Your task to perform on an android device: turn on bluetooth scan Image 0: 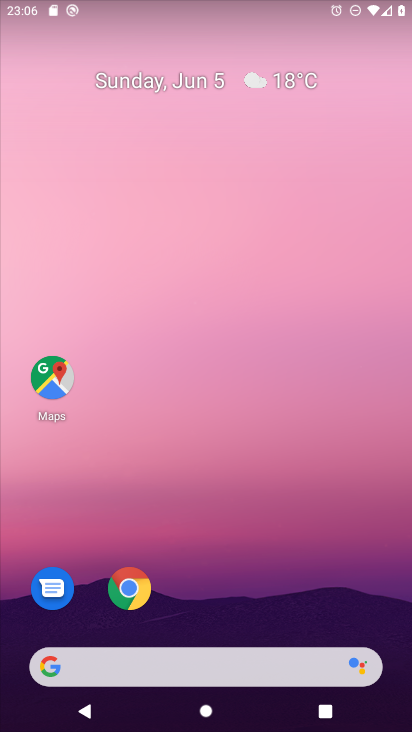
Step 0: drag from (347, 610) to (383, 179)
Your task to perform on an android device: turn on bluetooth scan Image 1: 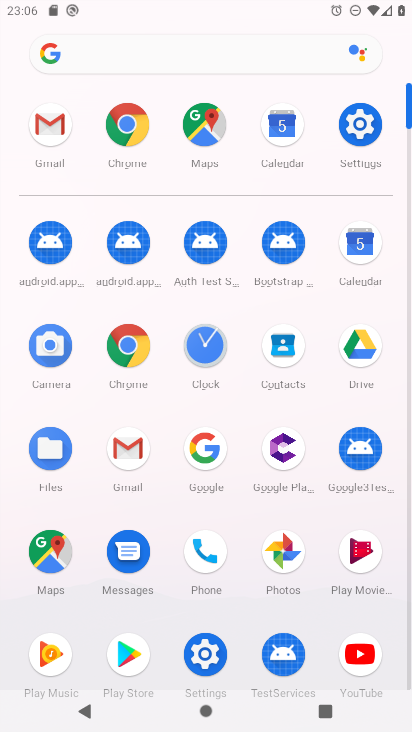
Step 1: click (360, 133)
Your task to perform on an android device: turn on bluetooth scan Image 2: 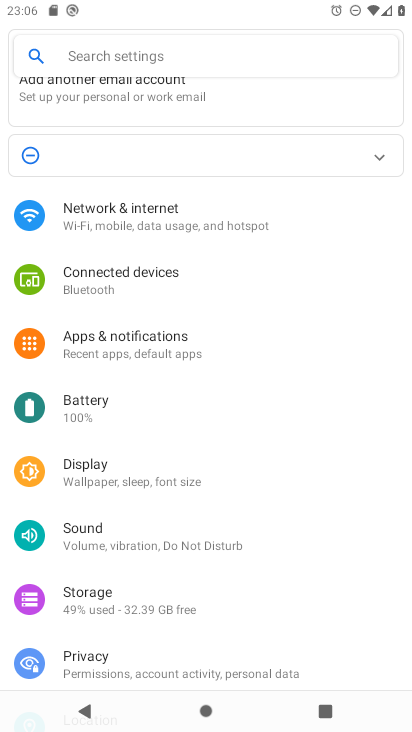
Step 2: drag from (381, 453) to (379, 294)
Your task to perform on an android device: turn on bluetooth scan Image 3: 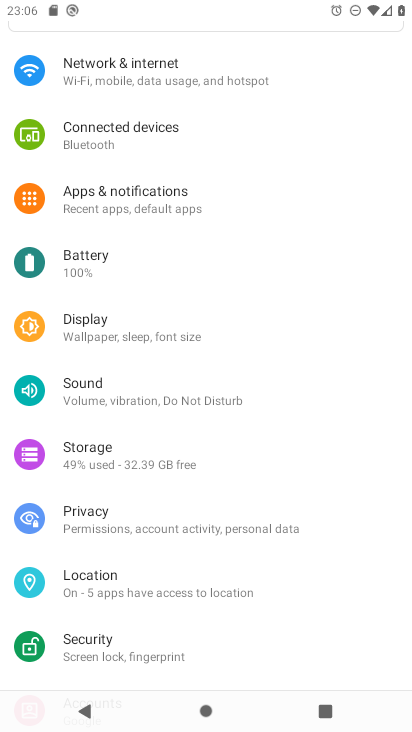
Step 3: drag from (357, 544) to (356, 367)
Your task to perform on an android device: turn on bluetooth scan Image 4: 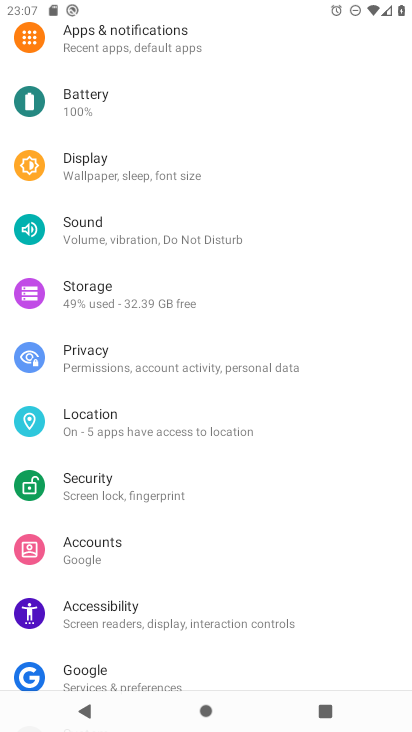
Step 4: drag from (361, 513) to (361, 360)
Your task to perform on an android device: turn on bluetooth scan Image 5: 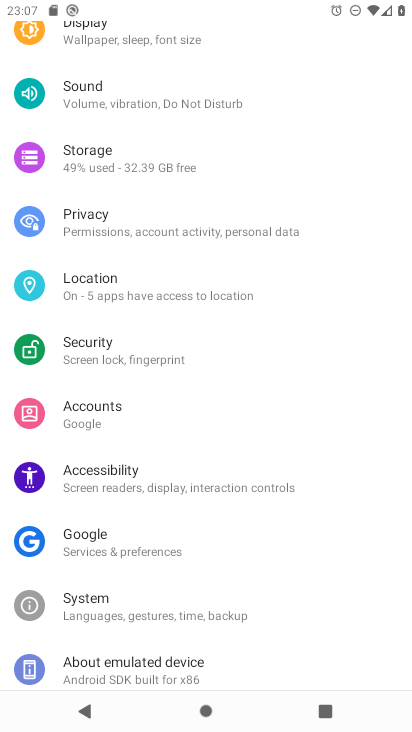
Step 5: drag from (330, 494) to (335, 347)
Your task to perform on an android device: turn on bluetooth scan Image 6: 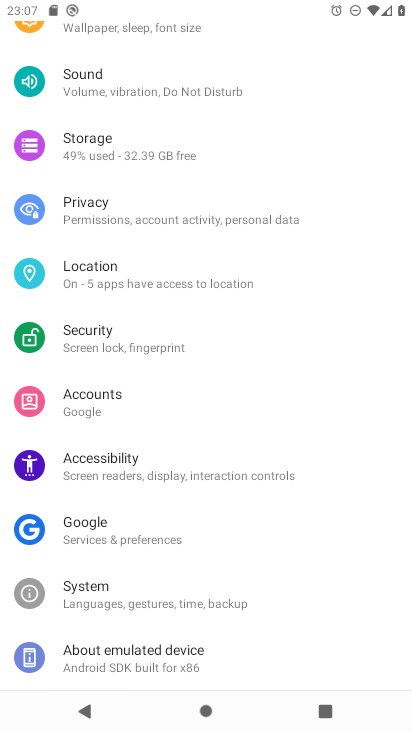
Step 6: drag from (317, 510) to (308, 376)
Your task to perform on an android device: turn on bluetooth scan Image 7: 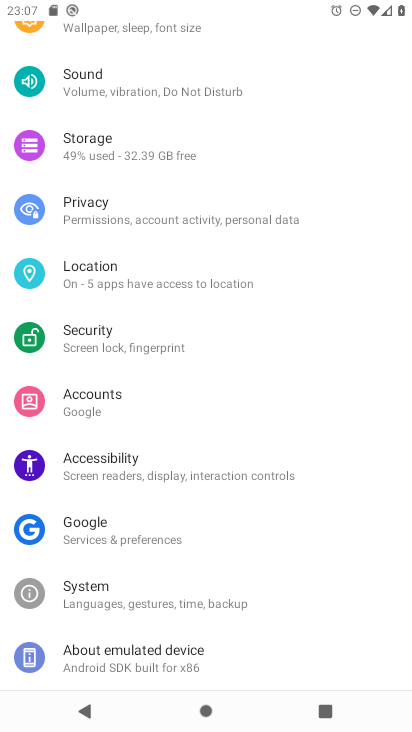
Step 7: click (255, 279)
Your task to perform on an android device: turn on bluetooth scan Image 8: 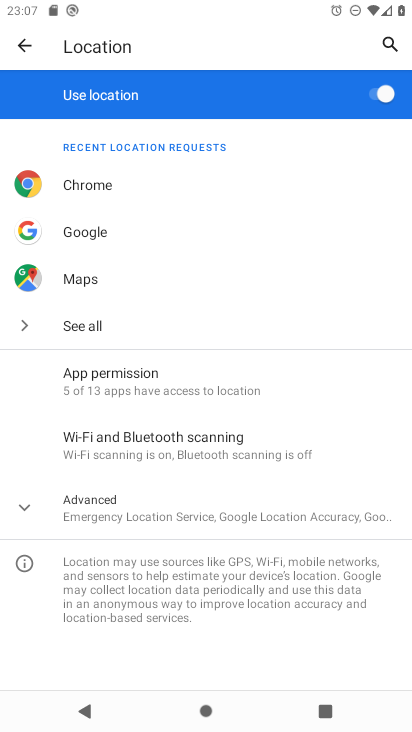
Step 8: click (281, 455)
Your task to perform on an android device: turn on bluetooth scan Image 9: 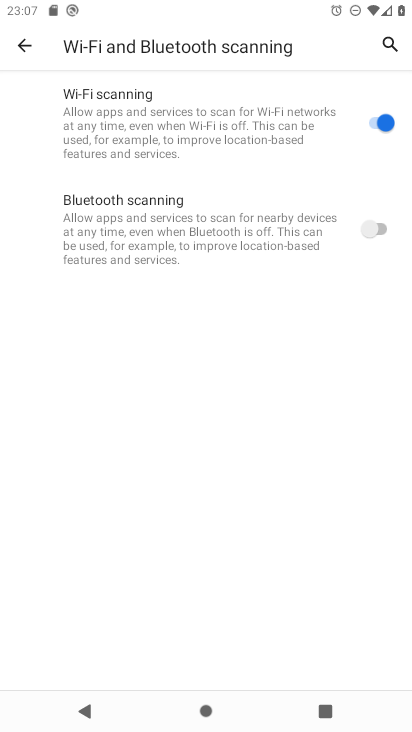
Step 9: click (364, 240)
Your task to perform on an android device: turn on bluetooth scan Image 10: 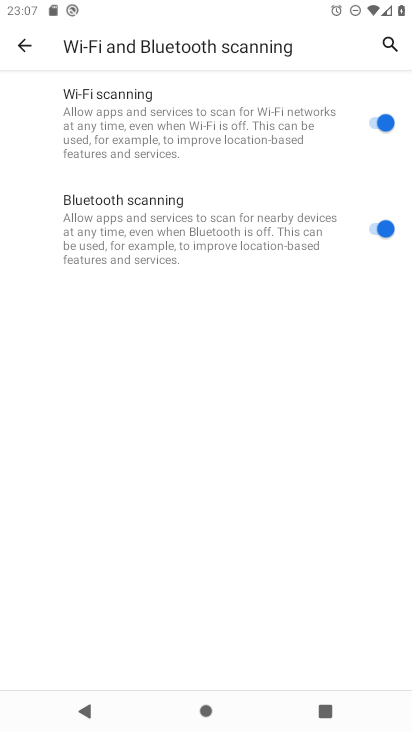
Step 10: task complete